Your task to perform on an android device: change the clock style Image 0: 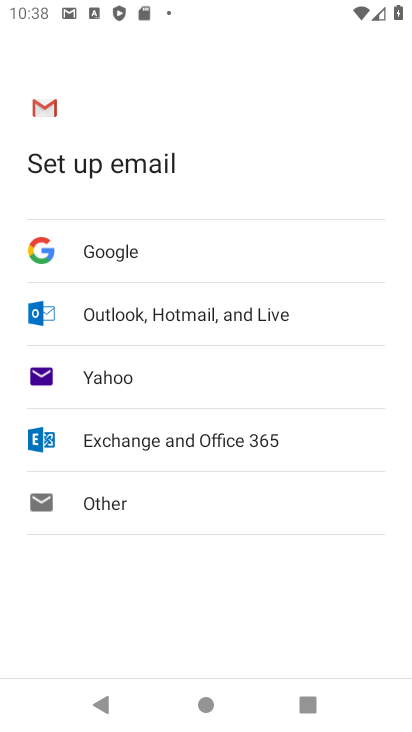
Step 0: press home button
Your task to perform on an android device: change the clock style Image 1: 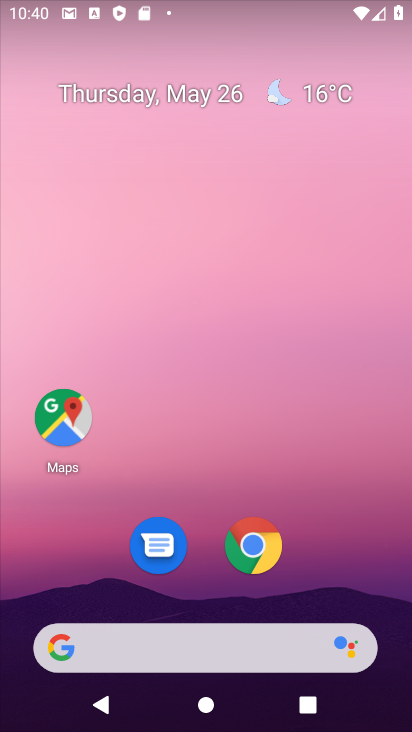
Step 1: drag from (322, 608) to (248, 311)
Your task to perform on an android device: change the clock style Image 2: 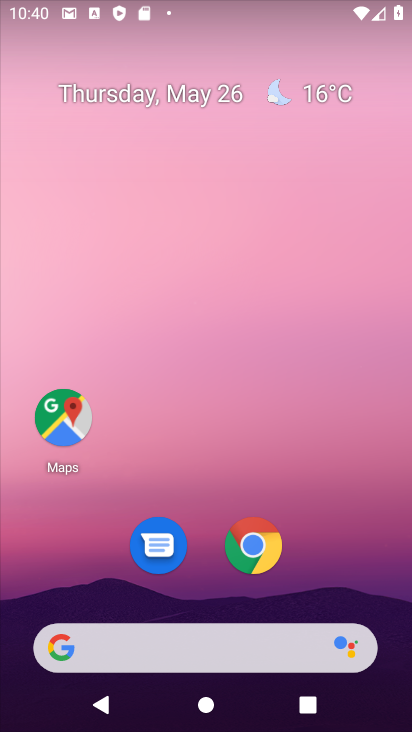
Step 2: drag from (369, 612) to (370, 91)
Your task to perform on an android device: change the clock style Image 3: 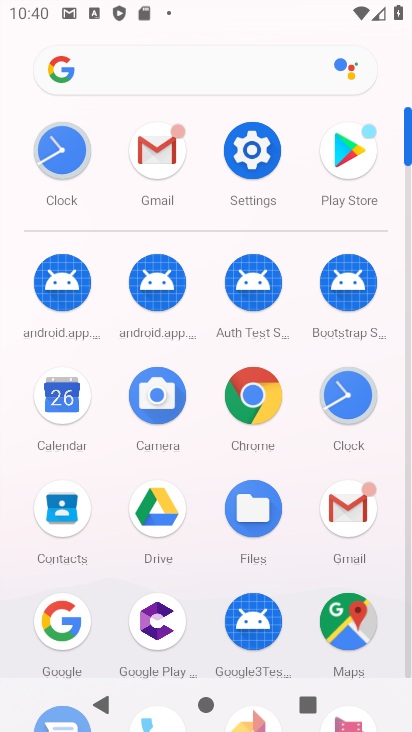
Step 3: click (360, 400)
Your task to perform on an android device: change the clock style Image 4: 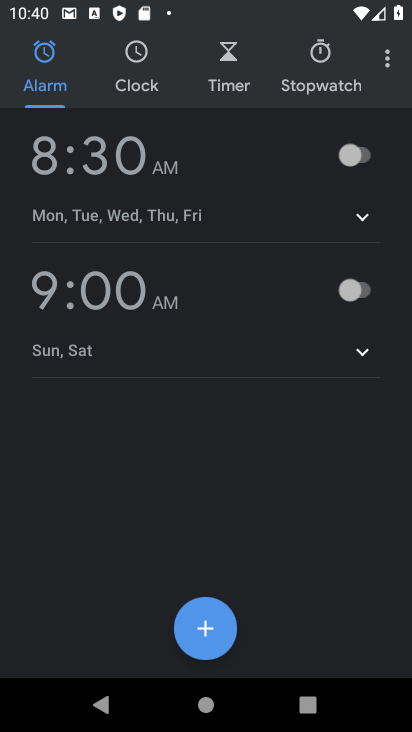
Step 4: click (390, 48)
Your task to perform on an android device: change the clock style Image 5: 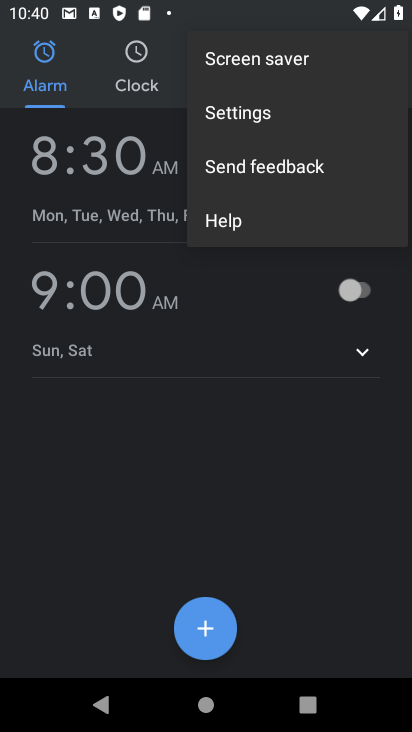
Step 5: click (238, 121)
Your task to perform on an android device: change the clock style Image 6: 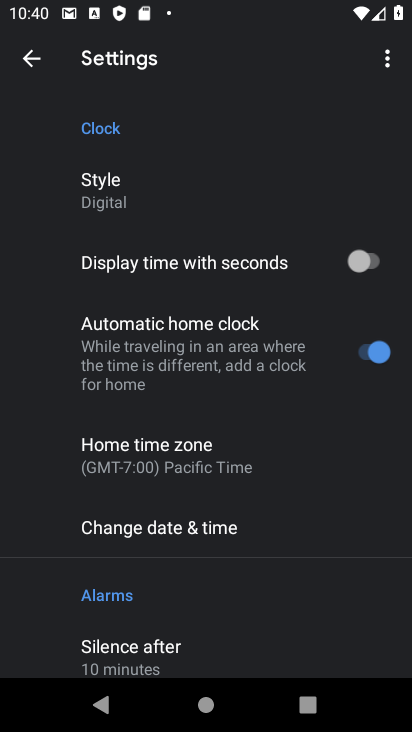
Step 6: click (95, 187)
Your task to perform on an android device: change the clock style Image 7: 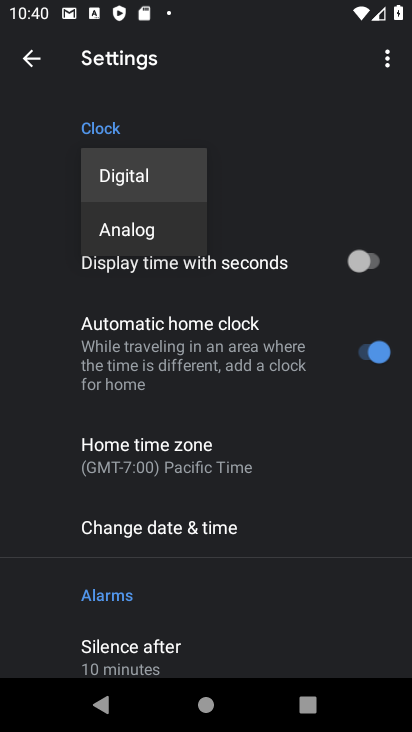
Step 7: click (118, 231)
Your task to perform on an android device: change the clock style Image 8: 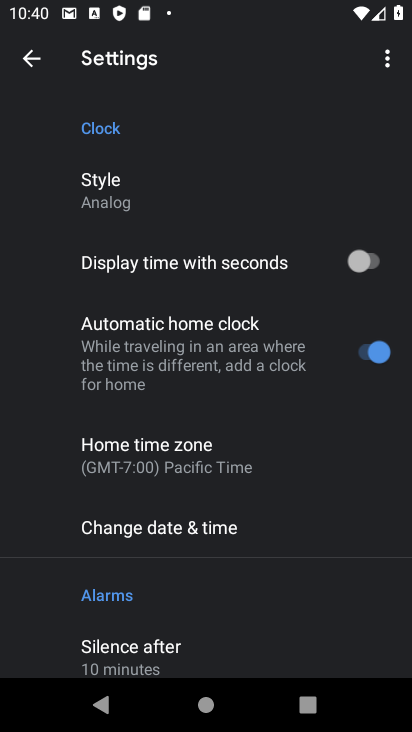
Step 8: task complete